Your task to perform on an android device: Search for pizza restaurants on Maps Image 0: 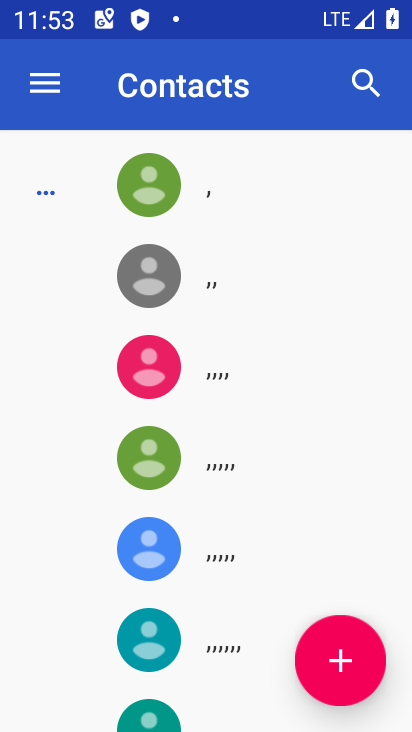
Step 0: press home button
Your task to perform on an android device: Search for pizza restaurants on Maps Image 1: 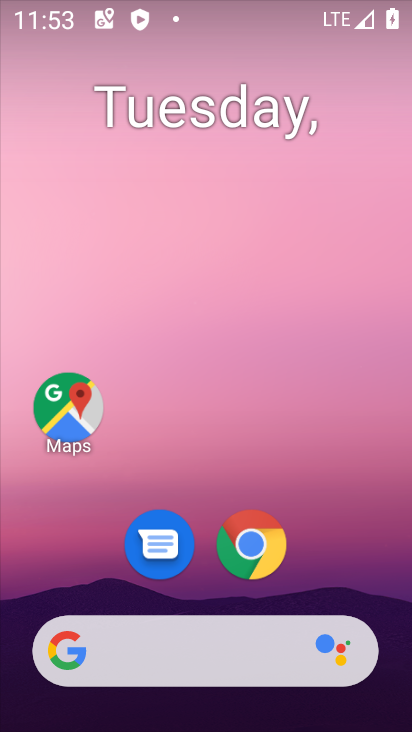
Step 1: drag from (398, 650) to (320, 64)
Your task to perform on an android device: Search for pizza restaurants on Maps Image 2: 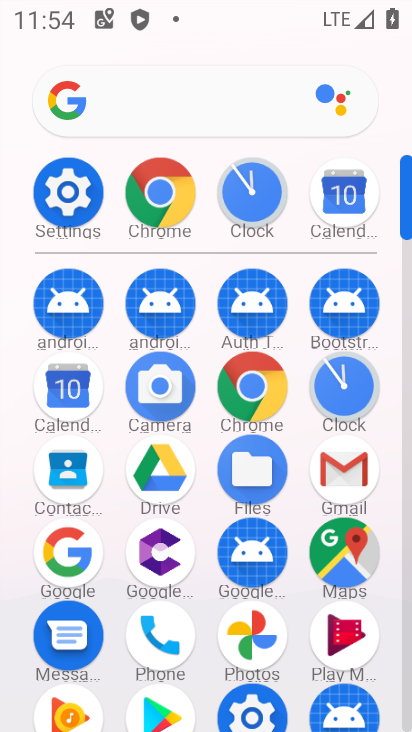
Step 2: click (351, 558)
Your task to perform on an android device: Search for pizza restaurants on Maps Image 3: 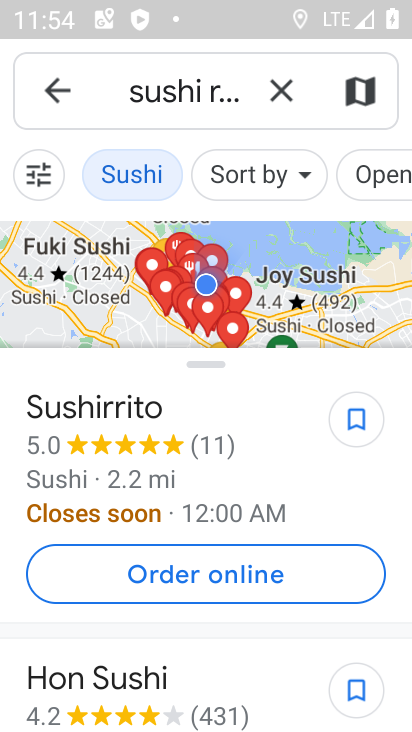
Step 3: click (277, 101)
Your task to perform on an android device: Search for pizza restaurants on Maps Image 4: 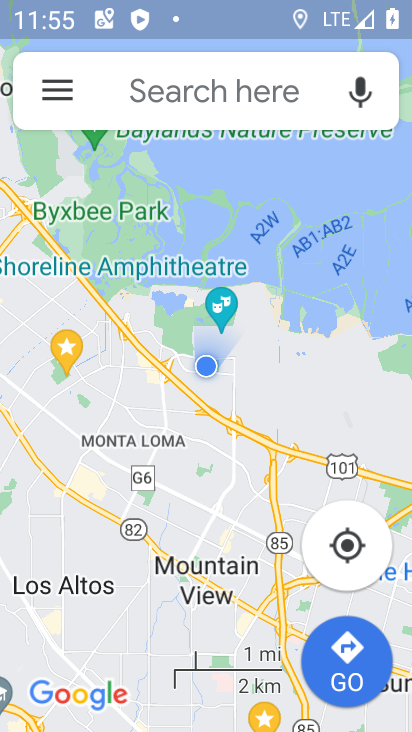
Step 4: click (145, 101)
Your task to perform on an android device: Search for pizza restaurants on Maps Image 5: 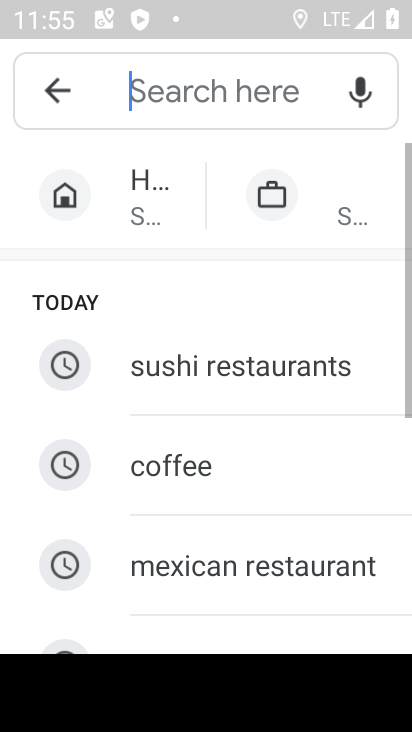
Step 5: drag from (225, 315) to (212, 185)
Your task to perform on an android device: Search for pizza restaurants on Maps Image 6: 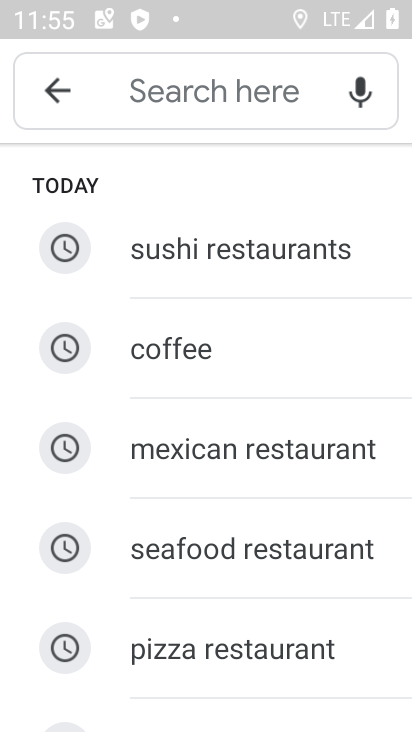
Step 6: click (217, 636)
Your task to perform on an android device: Search for pizza restaurants on Maps Image 7: 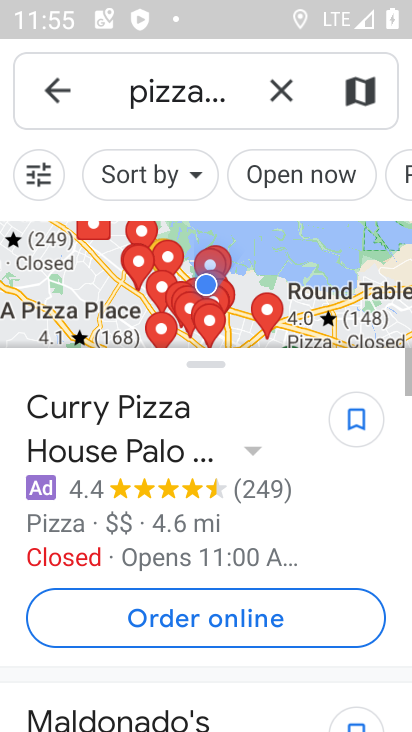
Step 7: task complete